Your task to perform on an android device: move a message to another label in the gmail app Image 0: 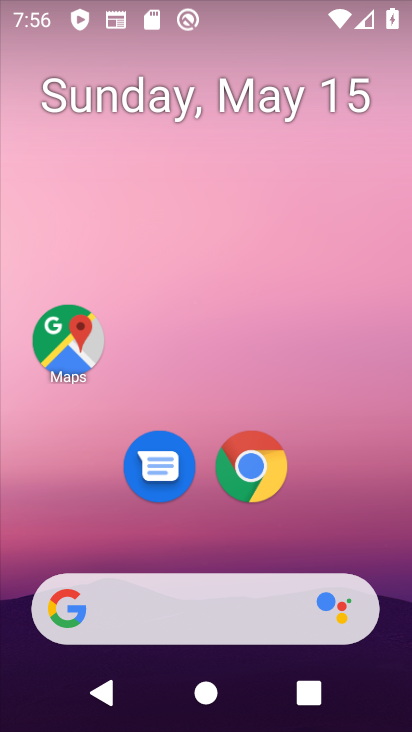
Step 0: drag from (222, 555) to (290, 17)
Your task to perform on an android device: move a message to another label in the gmail app Image 1: 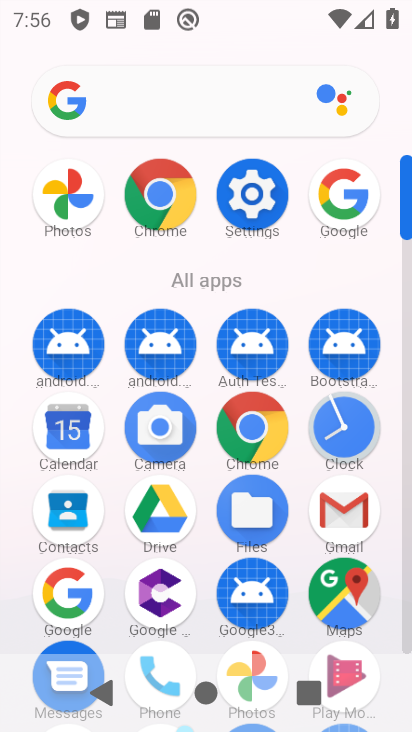
Step 1: click (338, 483)
Your task to perform on an android device: move a message to another label in the gmail app Image 2: 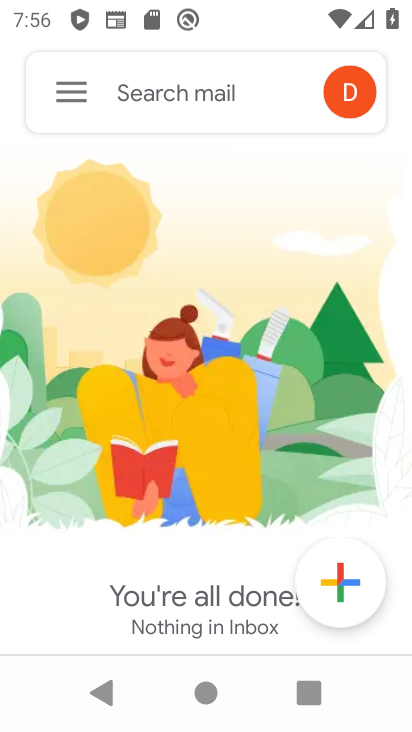
Step 2: click (62, 97)
Your task to perform on an android device: move a message to another label in the gmail app Image 3: 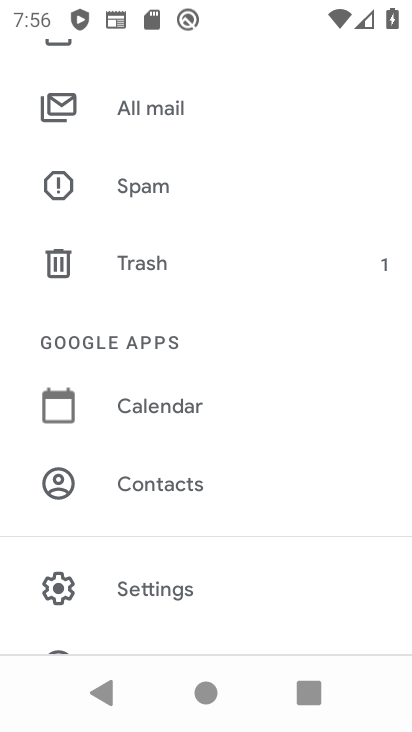
Step 3: task complete